Your task to perform on an android device: create a new album in the google photos Image 0: 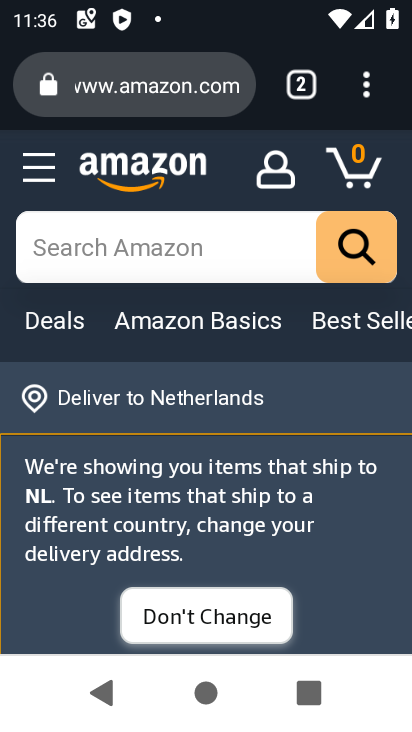
Step 0: press home button
Your task to perform on an android device: create a new album in the google photos Image 1: 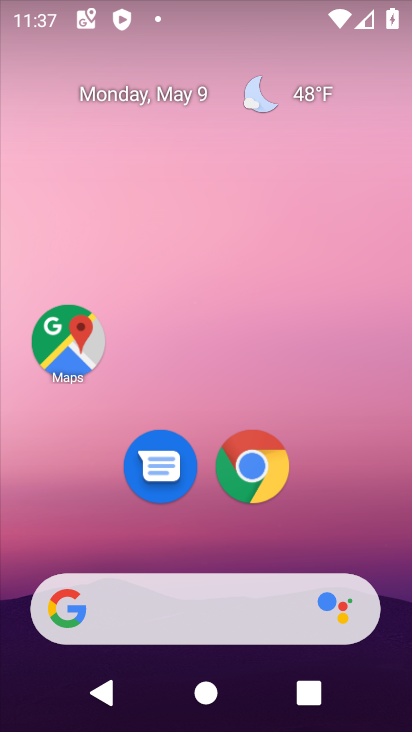
Step 1: drag from (363, 555) to (354, 158)
Your task to perform on an android device: create a new album in the google photos Image 2: 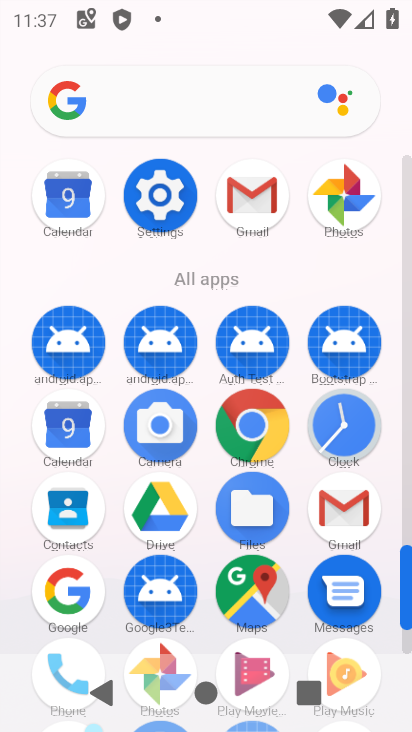
Step 2: click (407, 532)
Your task to perform on an android device: create a new album in the google photos Image 3: 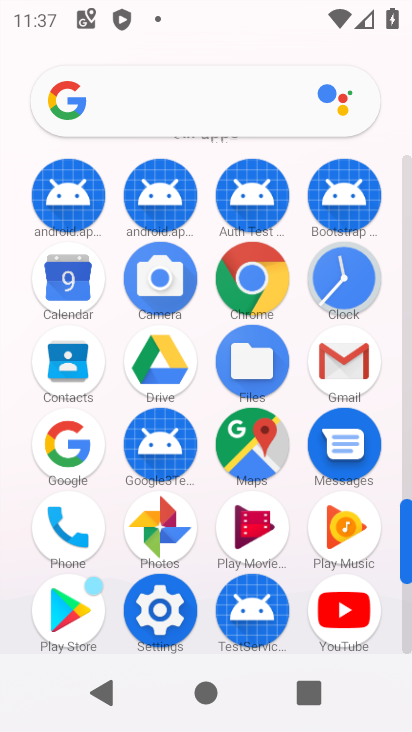
Step 3: click (159, 524)
Your task to perform on an android device: create a new album in the google photos Image 4: 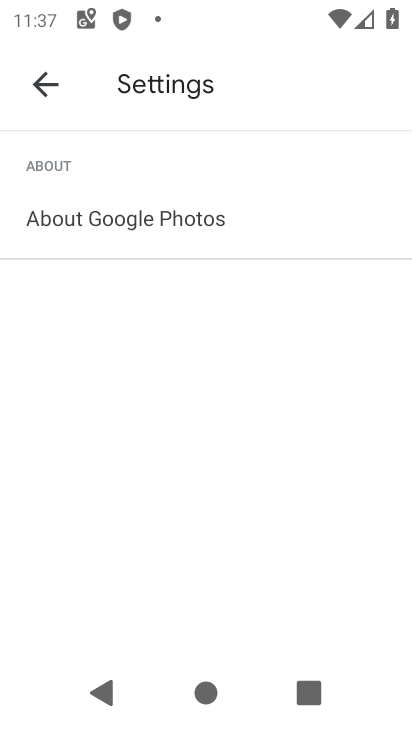
Step 4: press back button
Your task to perform on an android device: create a new album in the google photos Image 5: 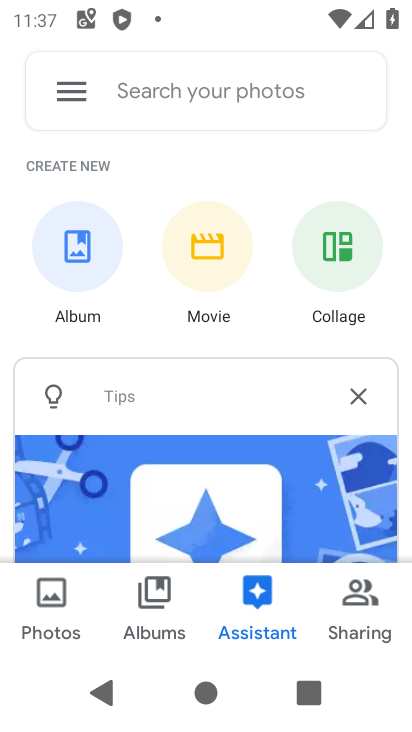
Step 5: click (143, 616)
Your task to perform on an android device: create a new album in the google photos Image 6: 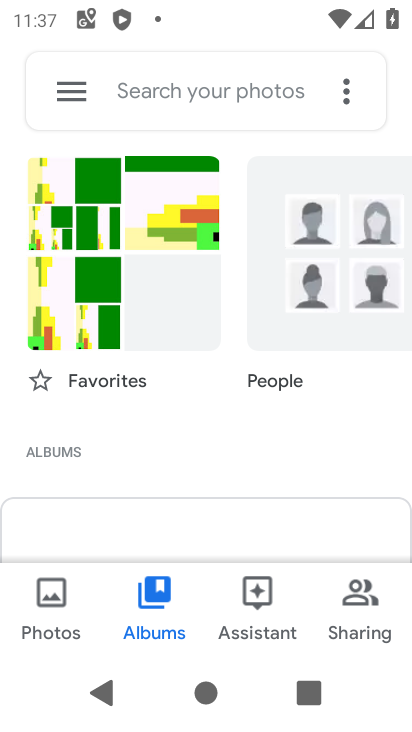
Step 6: drag from (175, 529) to (227, 101)
Your task to perform on an android device: create a new album in the google photos Image 7: 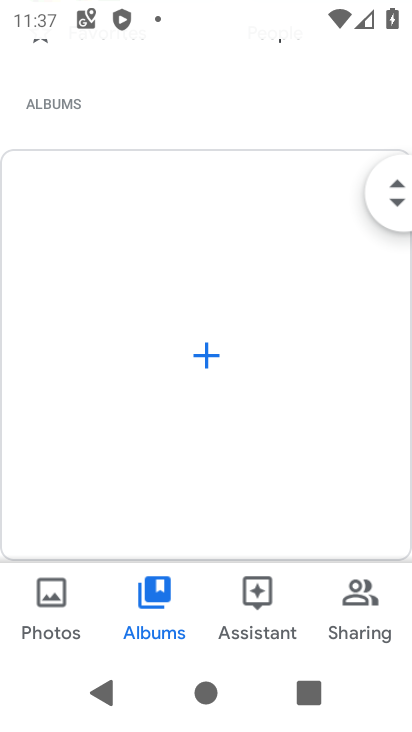
Step 7: click (199, 352)
Your task to perform on an android device: create a new album in the google photos Image 8: 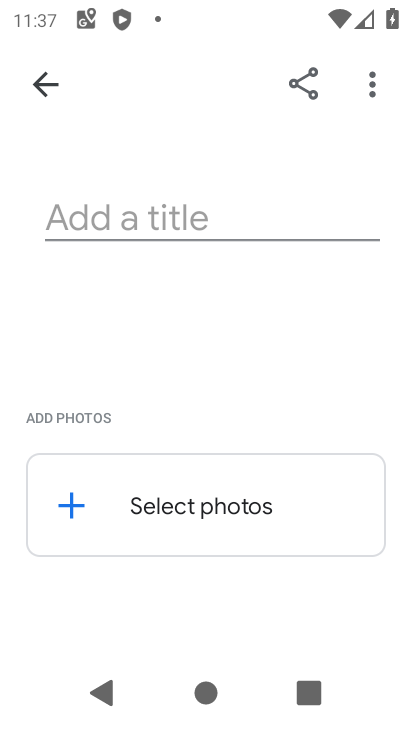
Step 8: click (104, 199)
Your task to perform on an android device: create a new album in the google photos Image 9: 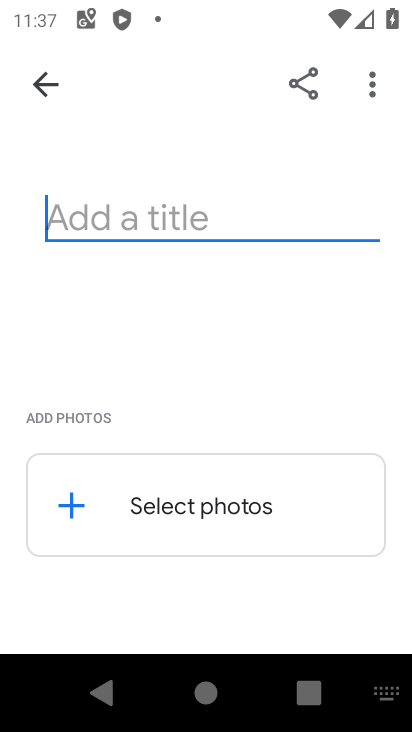
Step 9: type "dajafskg"
Your task to perform on an android device: create a new album in the google photos Image 10: 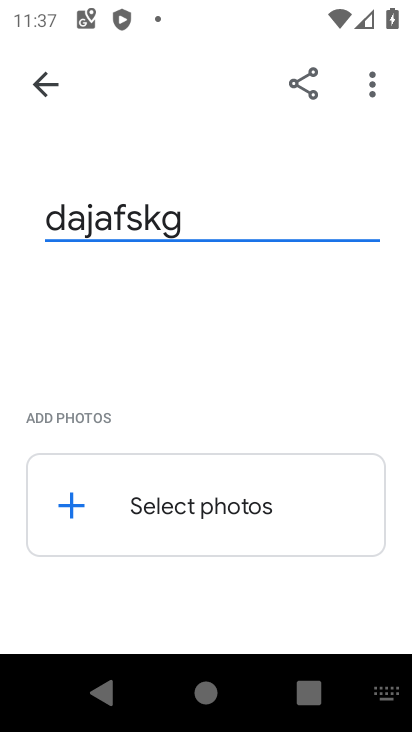
Step 10: click (73, 503)
Your task to perform on an android device: create a new album in the google photos Image 11: 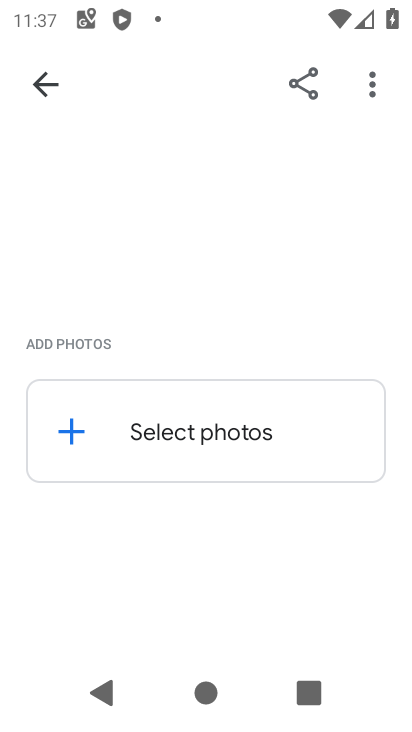
Step 11: click (69, 435)
Your task to perform on an android device: create a new album in the google photos Image 12: 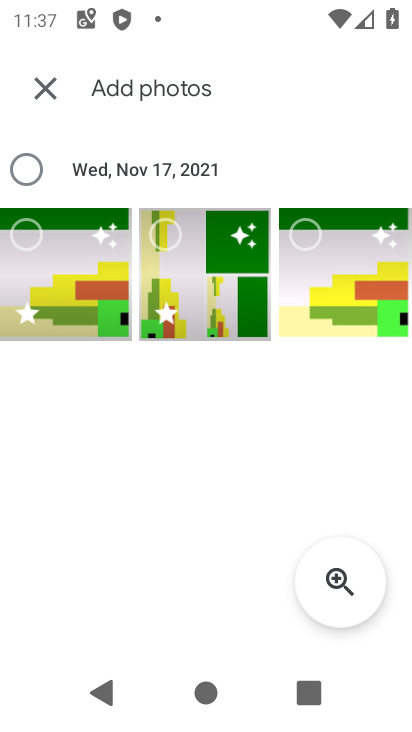
Step 12: click (27, 226)
Your task to perform on an android device: create a new album in the google photos Image 13: 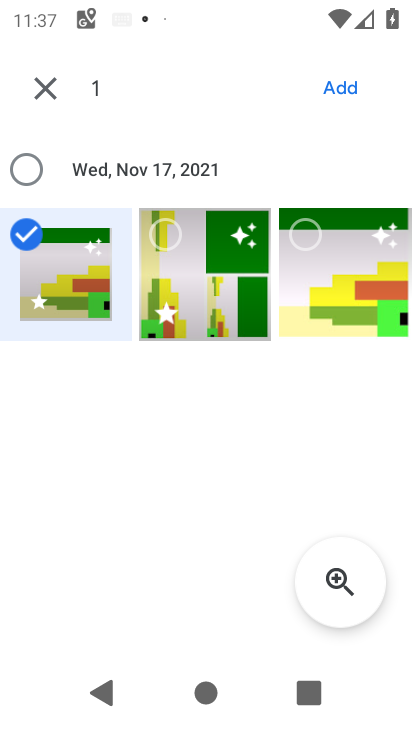
Step 13: click (171, 236)
Your task to perform on an android device: create a new album in the google photos Image 14: 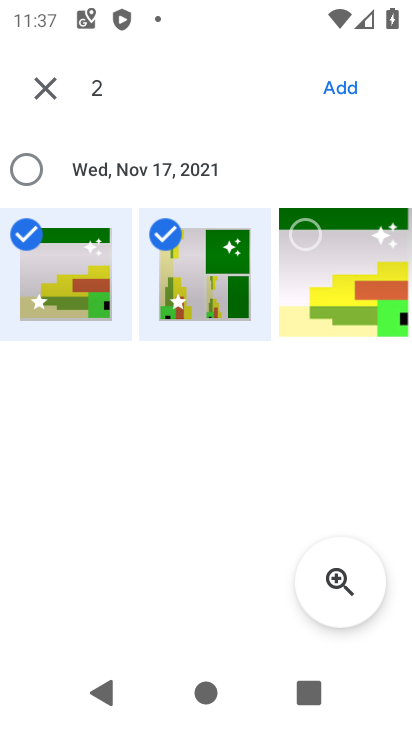
Step 14: click (348, 81)
Your task to perform on an android device: create a new album in the google photos Image 15: 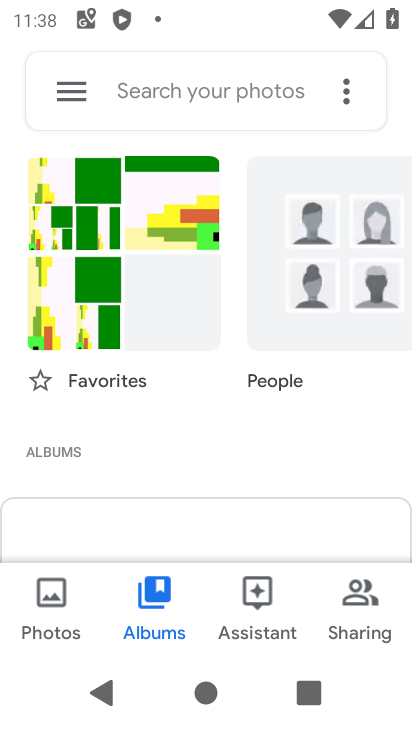
Step 15: click (51, 602)
Your task to perform on an android device: create a new album in the google photos Image 16: 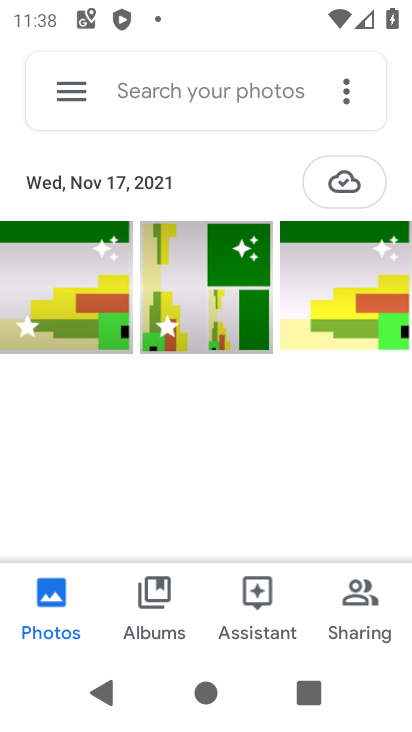
Step 16: task complete